Your task to perform on an android device: star an email in the gmail app Image 0: 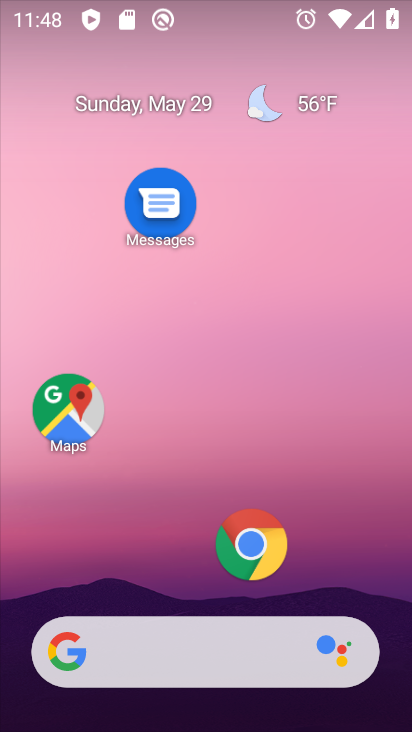
Step 0: drag from (193, 589) to (215, 28)
Your task to perform on an android device: star an email in the gmail app Image 1: 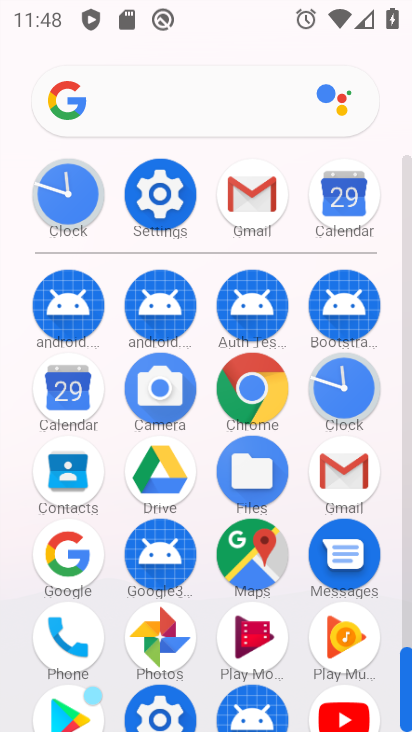
Step 1: click (249, 191)
Your task to perform on an android device: star an email in the gmail app Image 2: 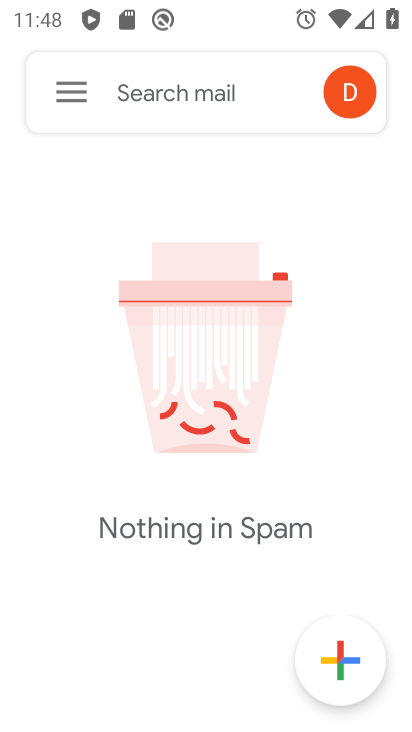
Step 2: task complete